Your task to perform on an android device: toggle data saver in the chrome app Image 0: 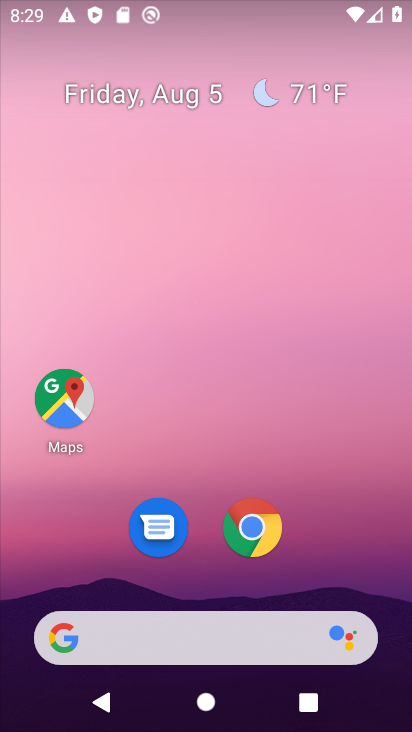
Step 0: drag from (315, 606) to (247, 14)
Your task to perform on an android device: toggle data saver in the chrome app Image 1: 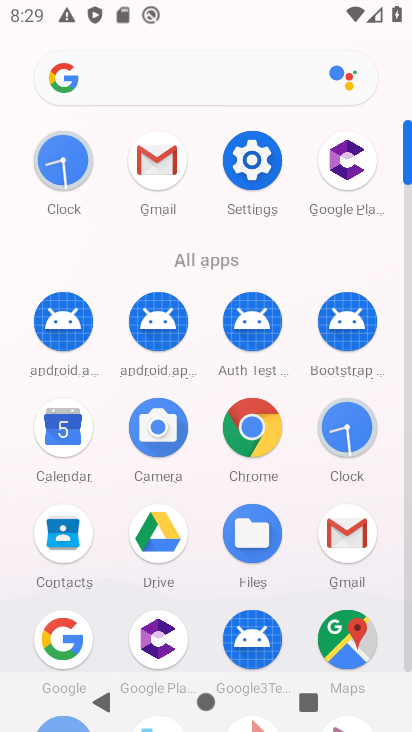
Step 1: click (248, 435)
Your task to perform on an android device: toggle data saver in the chrome app Image 2: 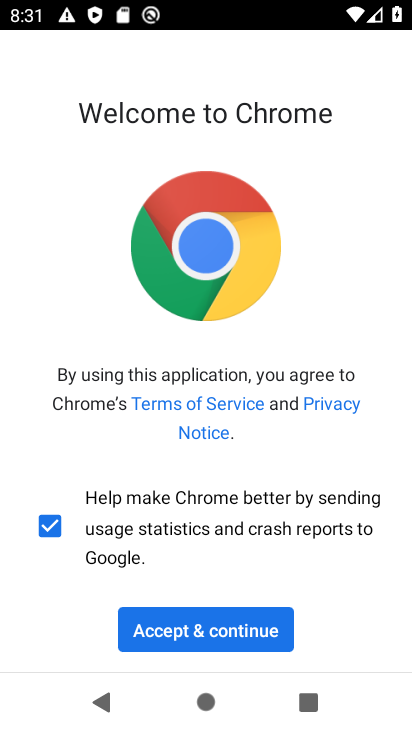
Step 2: click (222, 641)
Your task to perform on an android device: toggle data saver in the chrome app Image 3: 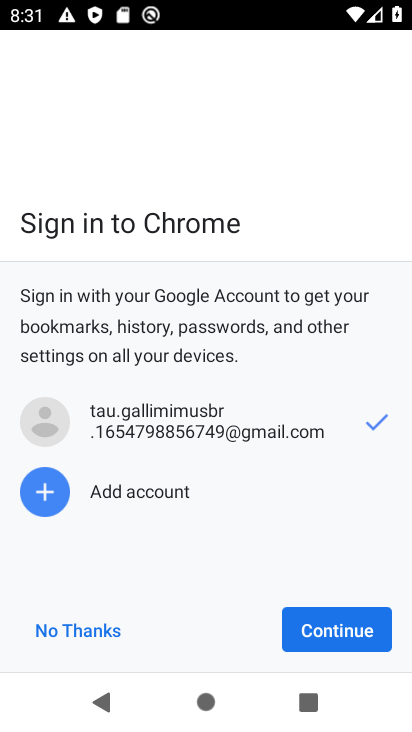
Step 3: click (46, 632)
Your task to perform on an android device: toggle data saver in the chrome app Image 4: 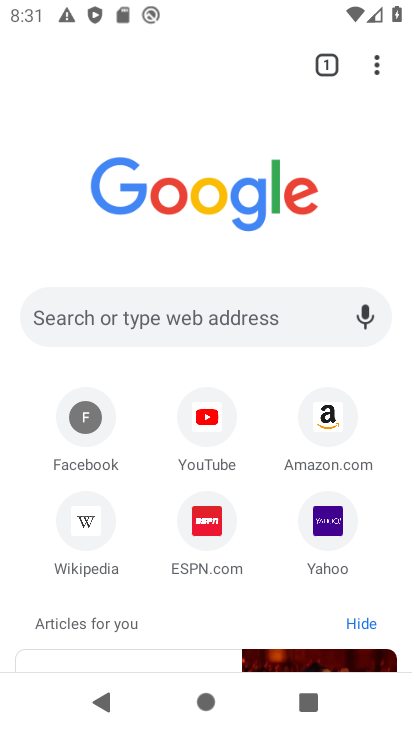
Step 4: drag from (384, 77) to (215, 559)
Your task to perform on an android device: toggle data saver in the chrome app Image 5: 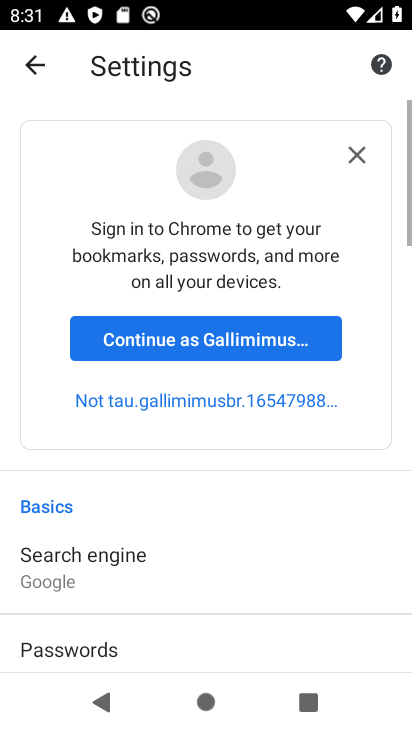
Step 5: drag from (195, 600) to (150, 129)
Your task to perform on an android device: toggle data saver in the chrome app Image 6: 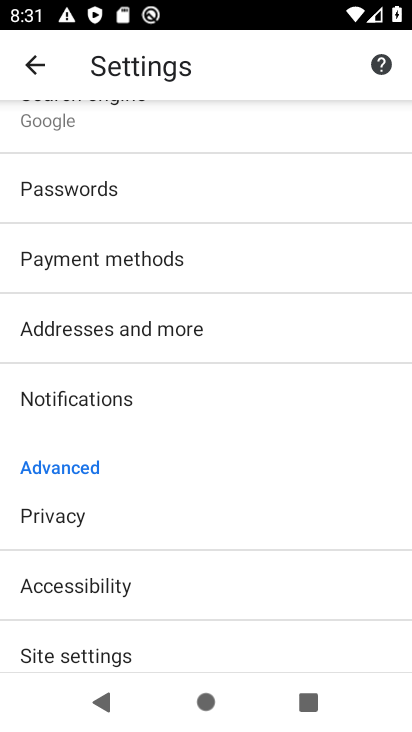
Step 6: drag from (170, 633) to (225, 174)
Your task to perform on an android device: toggle data saver in the chrome app Image 7: 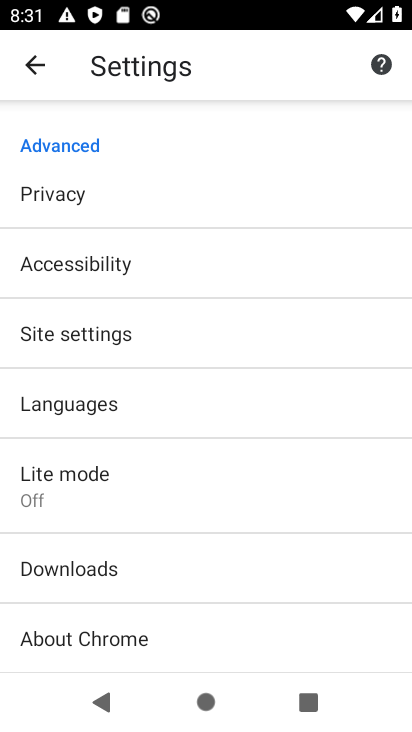
Step 7: click (154, 508)
Your task to perform on an android device: toggle data saver in the chrome app Image 8: 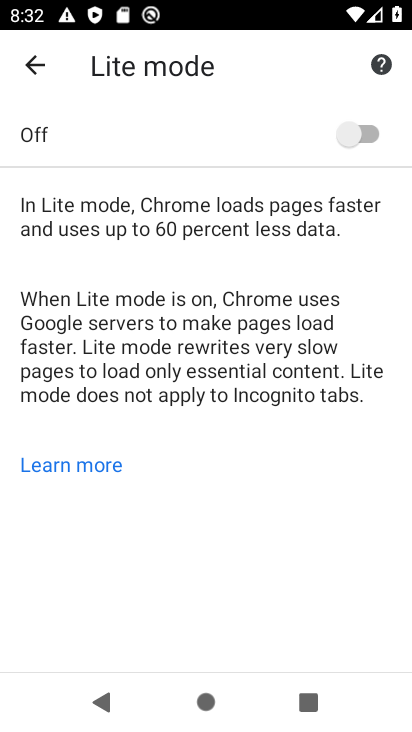
Step 8: click (357, 143)
Your task to perform on an android device: toggle data saver in the chrome app Image 9: 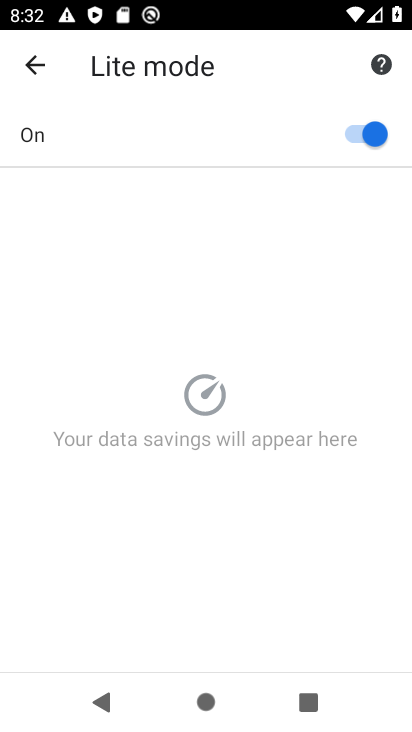
Step 9: task complete